Your task to perform on an android device: Go to Android settings Image 0: 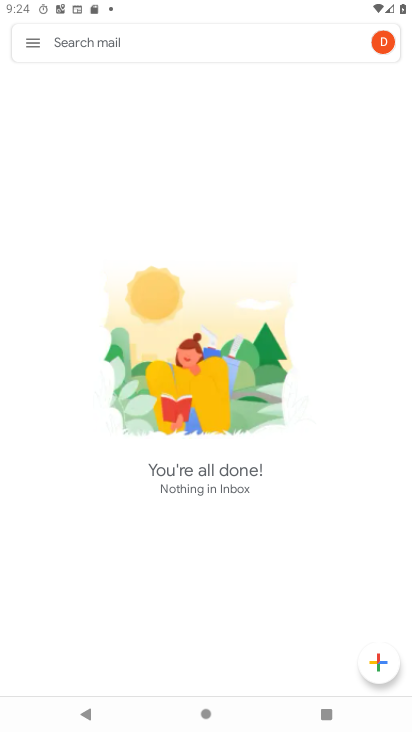
Step 0: press home button
Your task to perform on an android device: Go to Android settings Image 1: 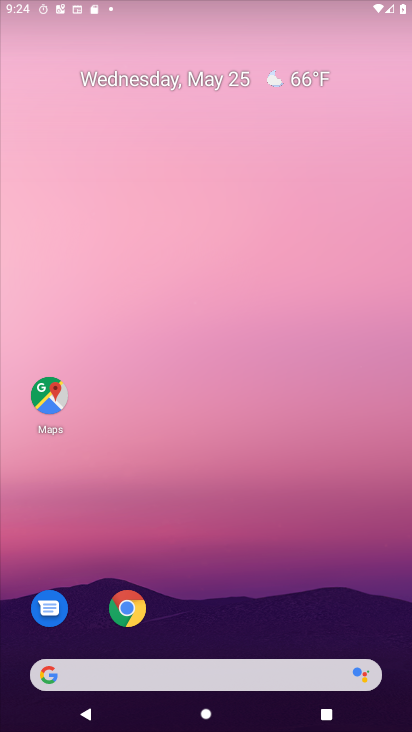
Step 1: drag from (224, 715) to (230, 53)
Your task to perform on an android device: Go to Android settings Image 2: 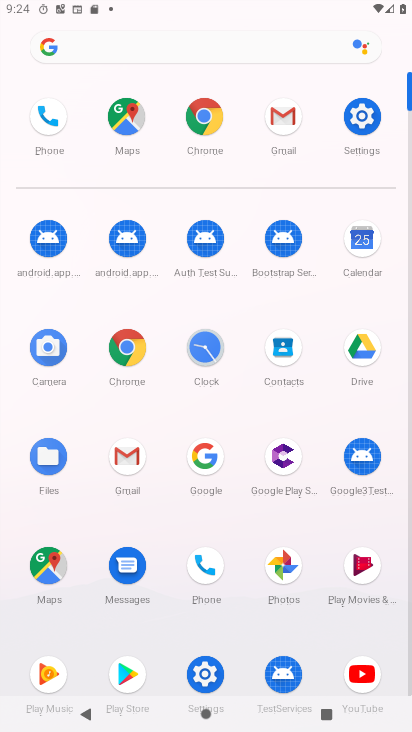
Step 2: click (360, 121)
Your task to perform on an android device: Go to Android settings Image 3: 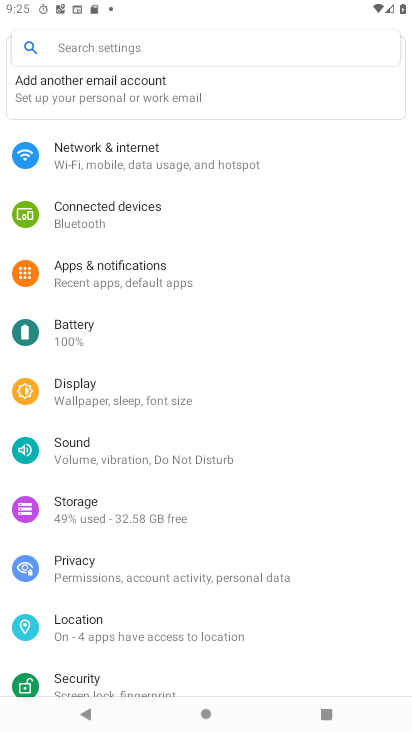
Step 3: task complete